Your task to perform on an android device: turn on the 12-hour format for clock Image 0: 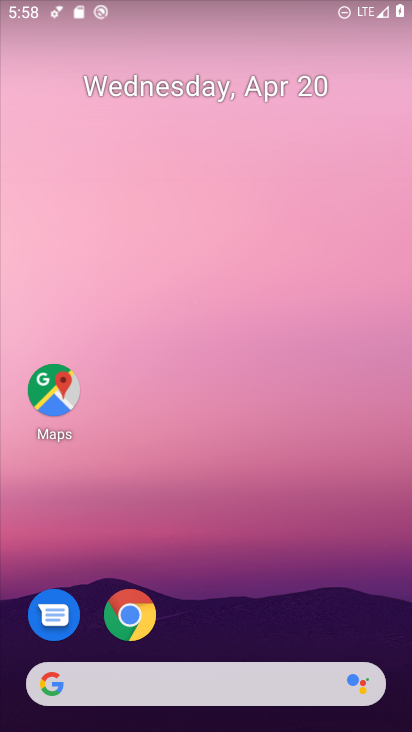
Step 0: drag from (242, 606) to (291, 72)
Your task to perform on an android device: turn on the 12-hour format for clock Image 1: 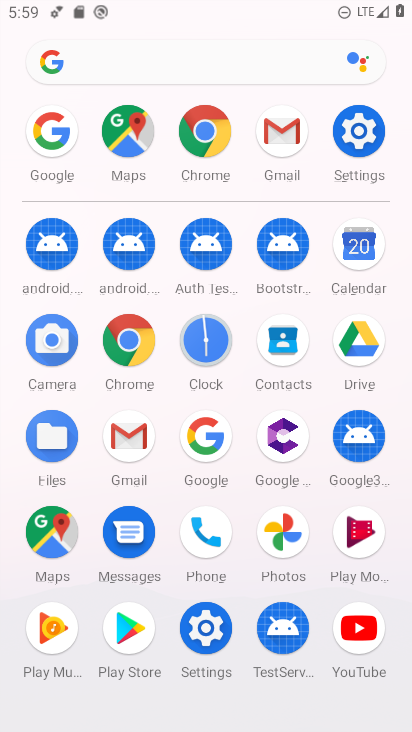
Step 1: click (204, 342)
Your task to perform on an android device: turn on the 12-hour format for clock Image 2: 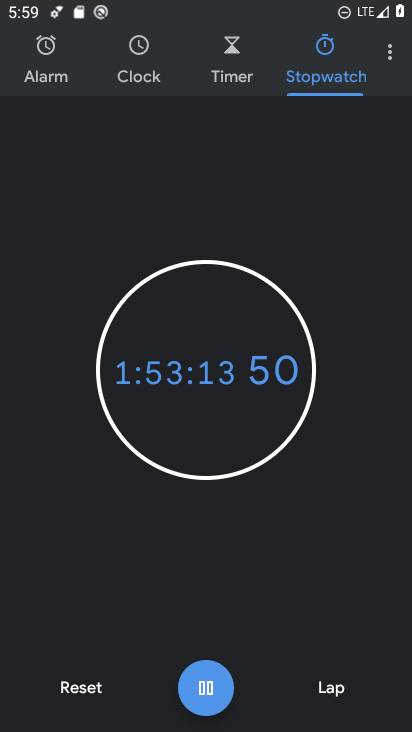
Step 2: click (391, 57)
Your task to perform on an android device: turn on the 12-hour format for clock Image 3: 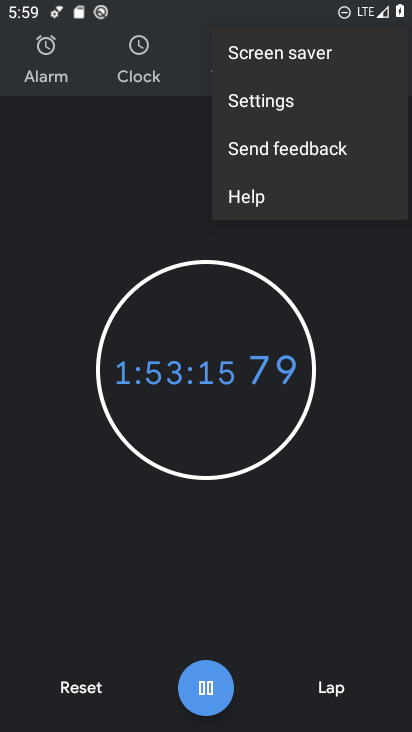
Step 3: click (302, 109)
Your task to perform on an android device: turn on the 12-hour format for clock Image 4: 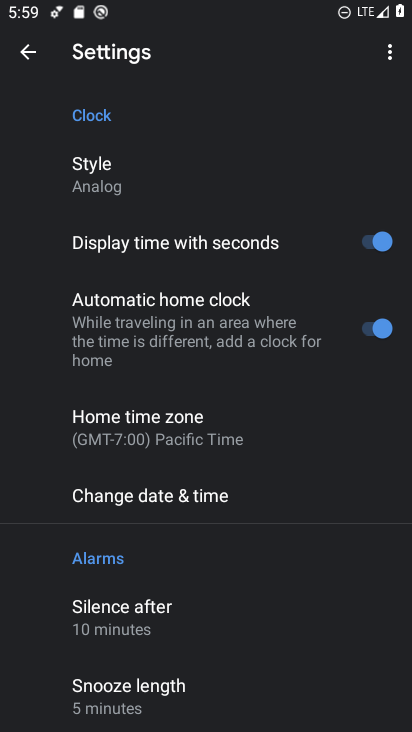
Step 4: click (212, 495)
Your task to perform on an android device: turn on the 12-hour format for clock Image 5: 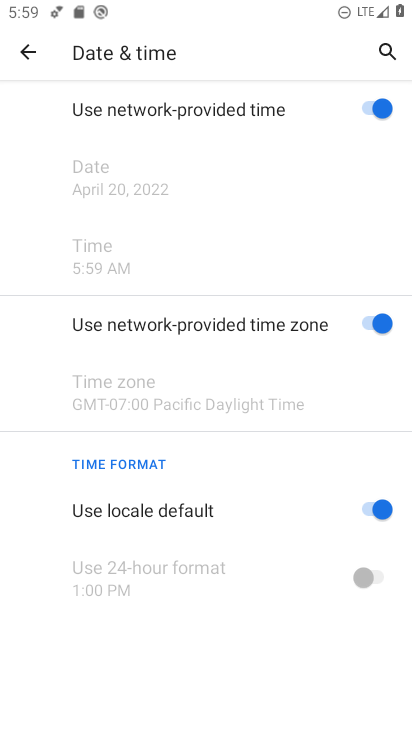
Step 5: task complete